Your task to perform on an android device: open chrome and create a bookmark for the current page Image 0: 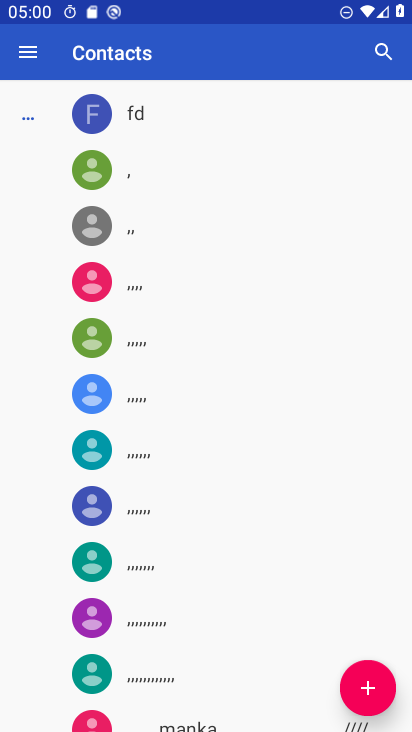
Step 0: press home button
Your task to perform on an android device: open chrome and create a bookmark for the current page Image 1: 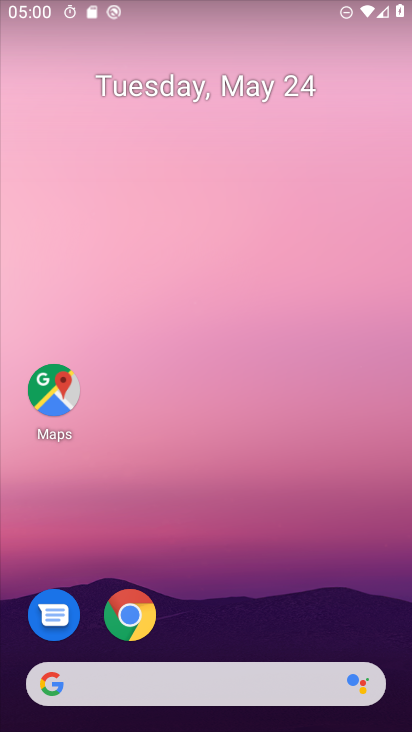
Step 1: click (138, 612)
Your task to perform on an android device: open chrome and create a bookmark for the current page Image 2: 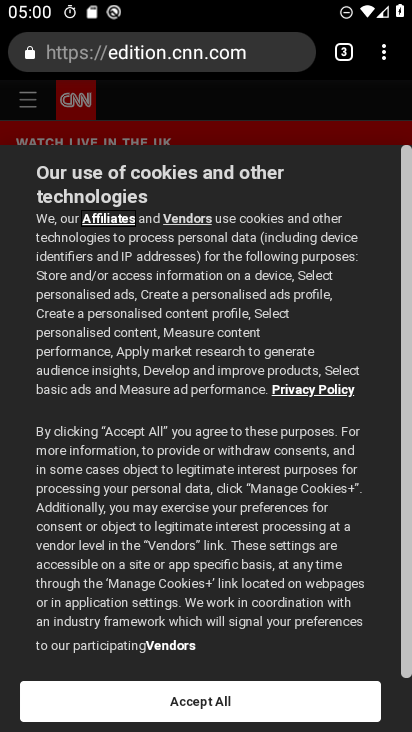
Step 2: task complete